Your task to perform on an android device: Open network settings Image 0: 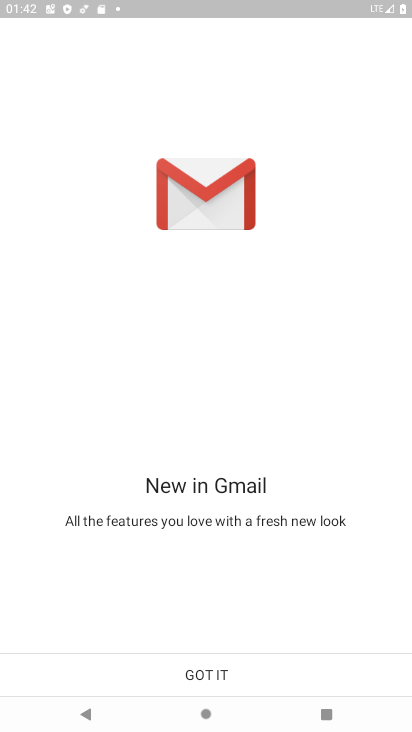
Step 0: press home button
Your task to perform on an android device: Open network settings Image 1: 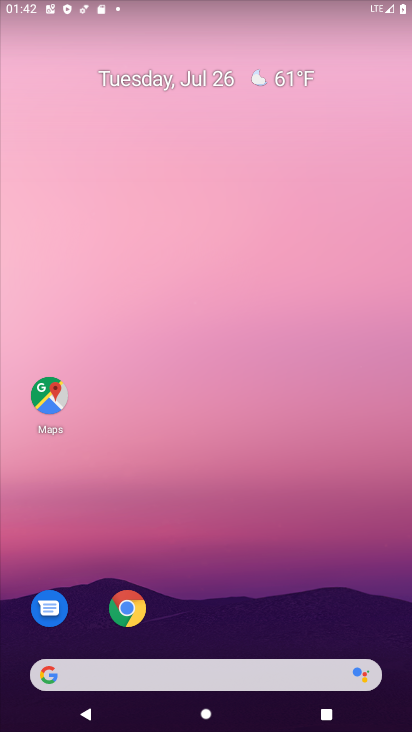
Step 1: drag from (20, 606) to (141, 213)
Your task to perform on an android device: Open network settings Image 2: 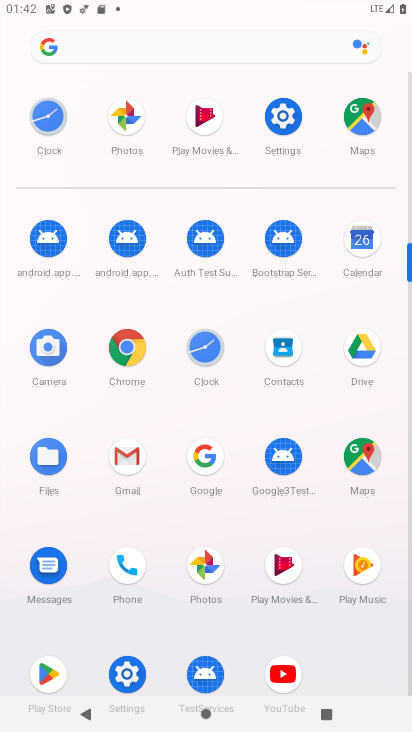
Step 2: click (288, 136)
Your task to perform on an android device: Open network settings Image 3: 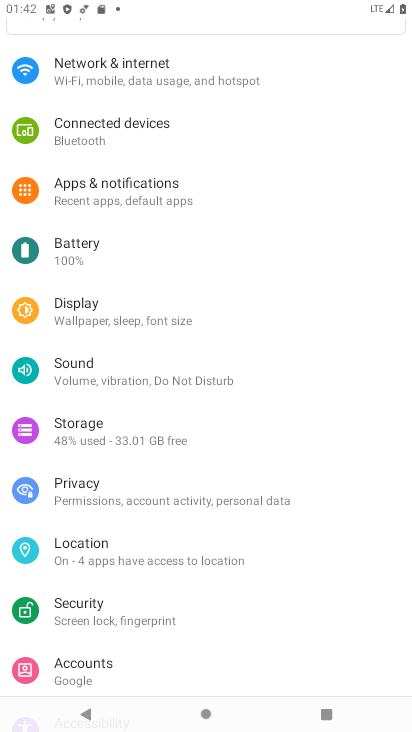
Step 3: click (79, 74)
Your task to perform on an android device: Open network settings Image 4: 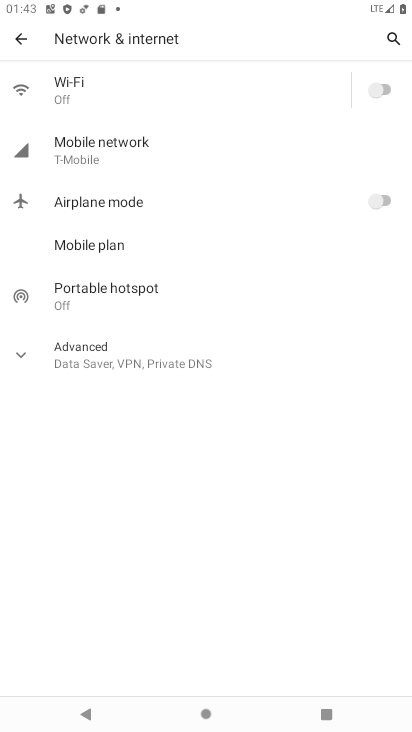
Step 4: click (158, 136)
Your task to perform on an android device: Open network settings Image 5: 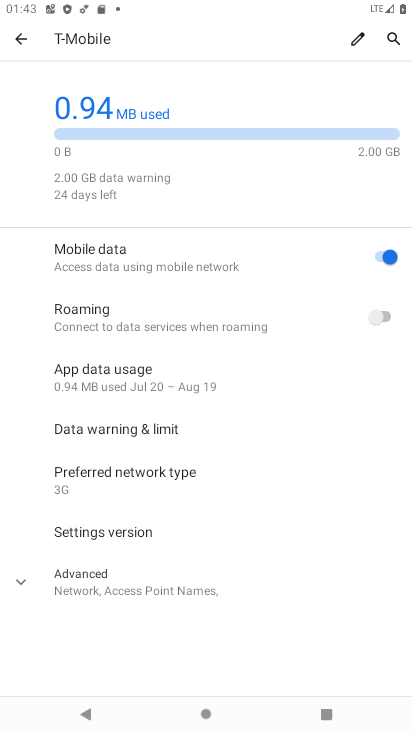
Step 5: task complete